Your task to perform on an android device: View the shopping cart on newegg.com. Add "dell alienware" to the cart on newegg.com, then select checkout. Image 0: 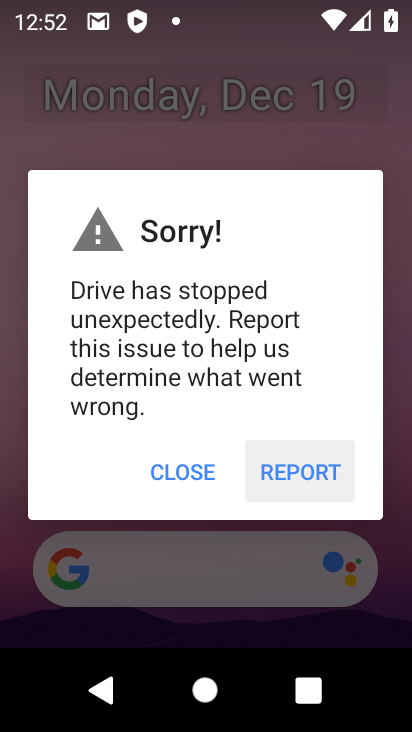
Step 0: press home button
Your task to perform on an android device: View the shopping cart on newegg.com. Add "dell alienware" to the cart on newegg.com, then select checkout. Image 1: 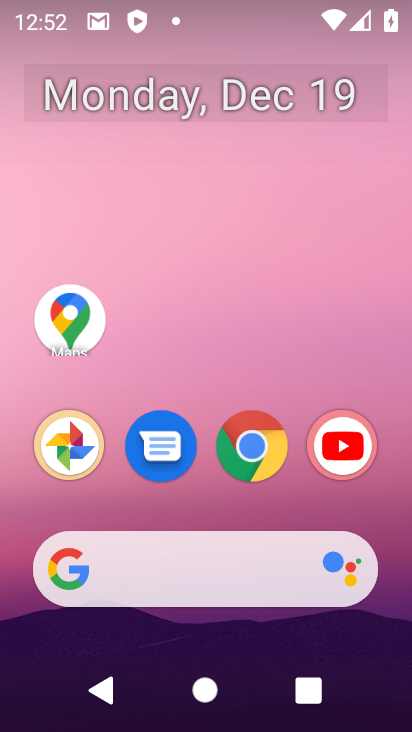
Step 1: click (243, 458)
Your task to perform on an android device: View the shopping cart on newegg.com. Add "dell alienware" to the cart on newegg.com, then select checkout. Image 2: 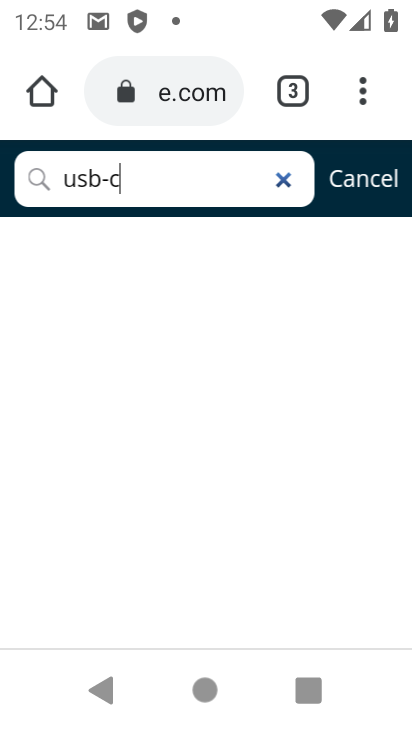
Step 2: task complete